Your task to perform on an android device: Open Youtube and go to "Your channel" Image 0: 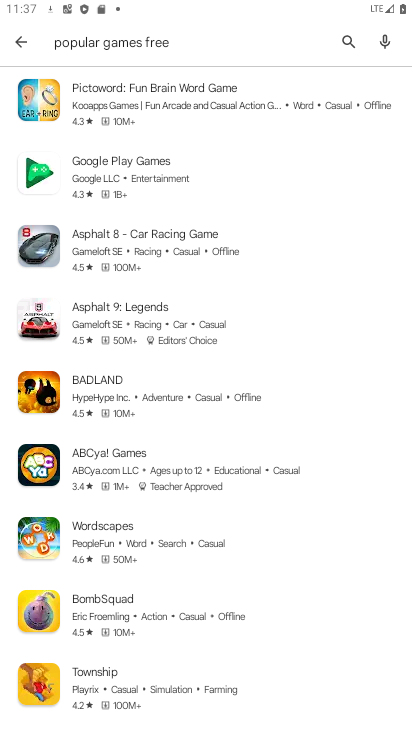
Step 0: press home button
Your task to perform on an android device: Open Youtube and go to "Your channel" Image 1: 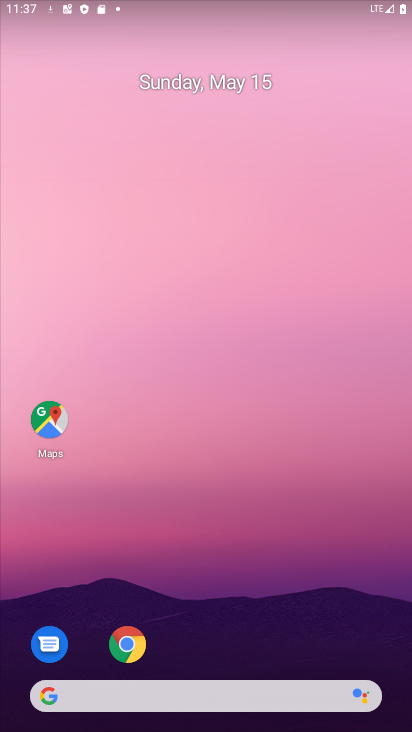
Step 1: drag from (225, 722) to (235, 265)
Your task to perform on an android device: Open Youtube and go to "Your channel" Image 2: 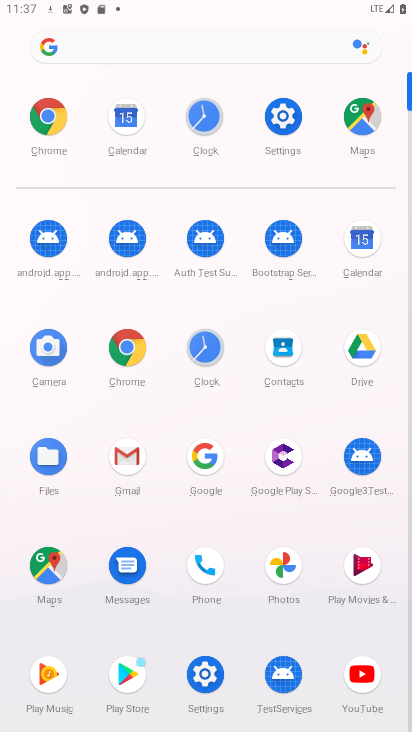
Step 2: click (357, 668)
Your task to perform on an android device: Open Youtube and go to "Your channel" Image 3: 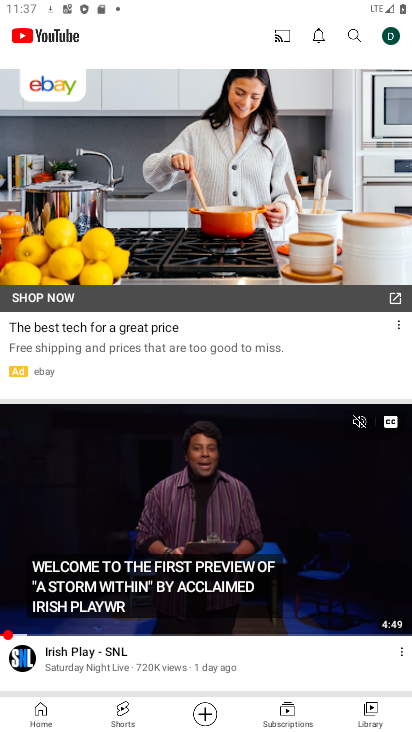
Step 3: click (386, 36)
Your task to perform on an android device: Open Youtube and go to "Your channel" Image 4: 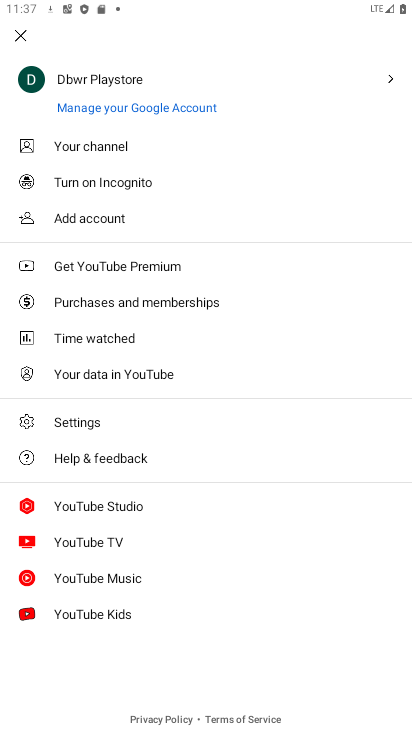
Step 4: click (118, 152)
Your task to perform on an android device: Open Youtube and go to "Your channel" Image 5: 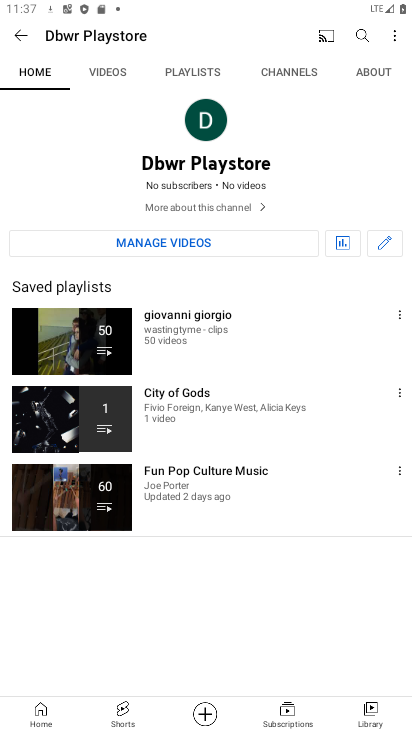
Step 5: task complete